Your task to perform on an android device: Open Google Chrome Image 0: 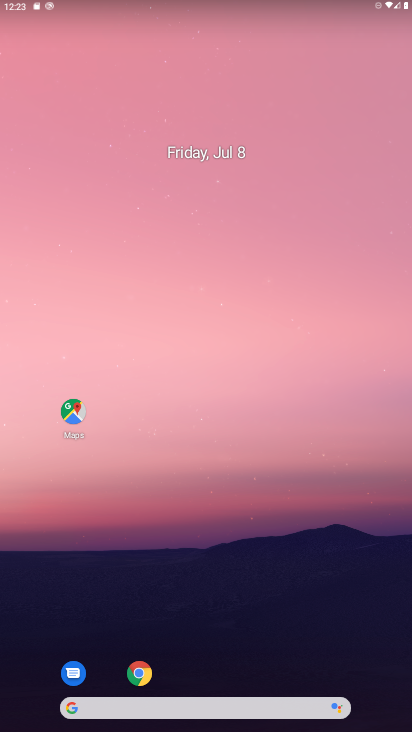
Step 0: click (137, 664)
Your task to perform on an android device: Open Google Chrome Image 1: 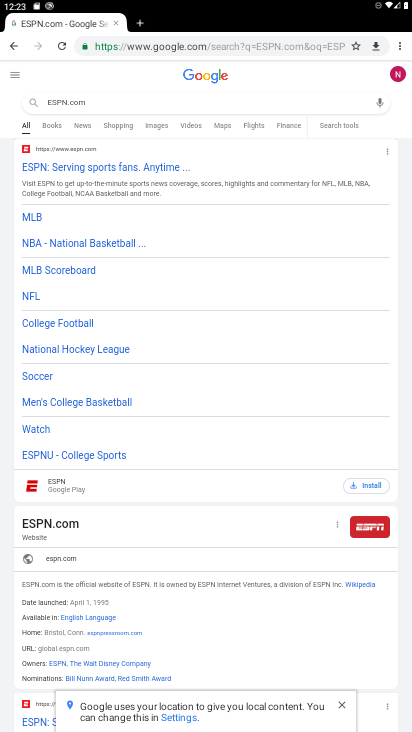
Step 1: task complete